Your task to perform on an android device: find snoozed emails in the gmail app Image 0: 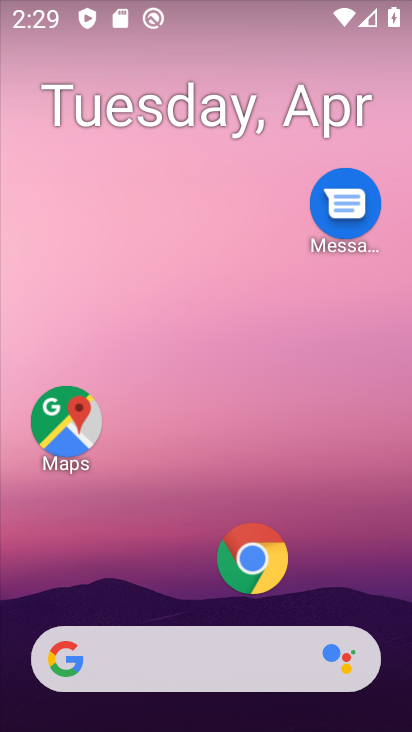
Step 0: drag from (208, 621) to (111, 10)
Your task to perform on an android device: find snoozed emails in the gmail app Image 1: 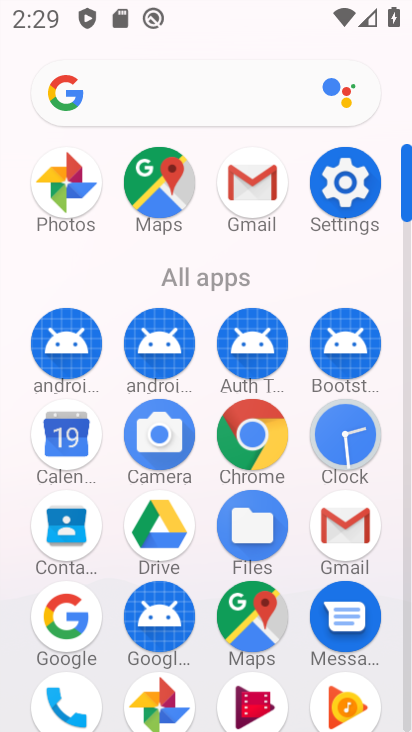
Step 1: click (339, 532)
Your task to perform on an android device: find snoozed emails in the gmail app Image 2: 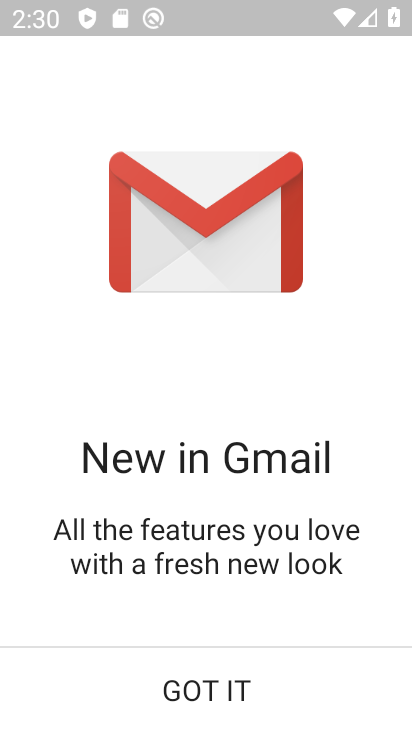
Step 2: click (194, 695)
Your task to perform on an android device: find snoozed emails in the gmail app Image 3: 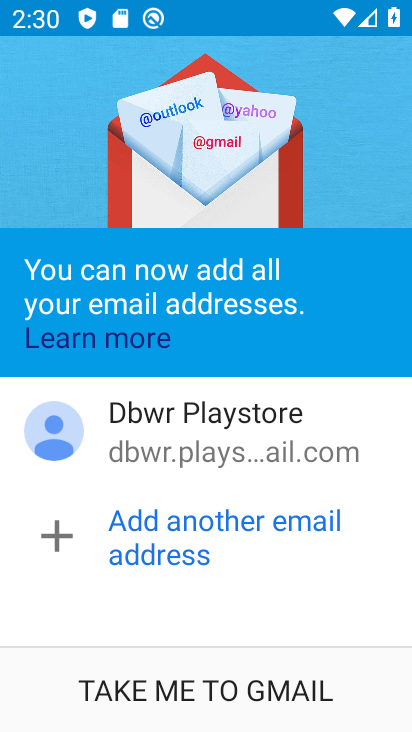
Step 3: click (194, 694)
Your task to perform on an android device: find snoozed emails in the gmail app Image 4: 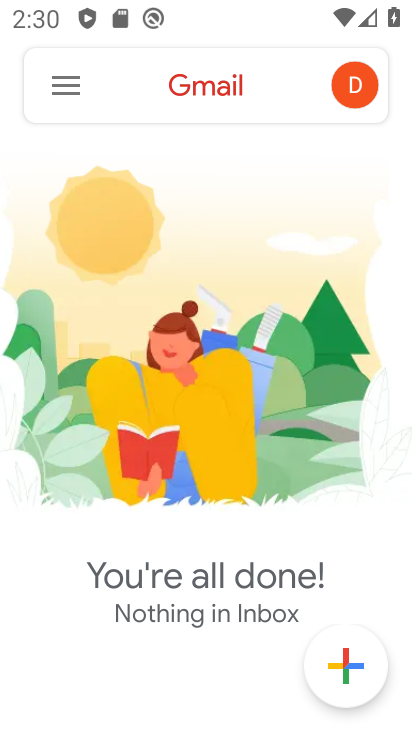
Step 4: click (54, 102)
Your task to perform on an android device: find snoozed emails in the gmail app Image 5: 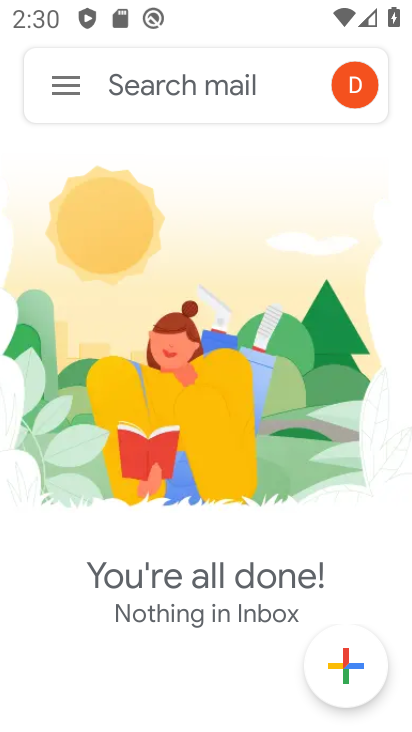
Step 5: click (55, 90)
Your task to perform on an android device: find snoozed emails in the gmail app Image 6: 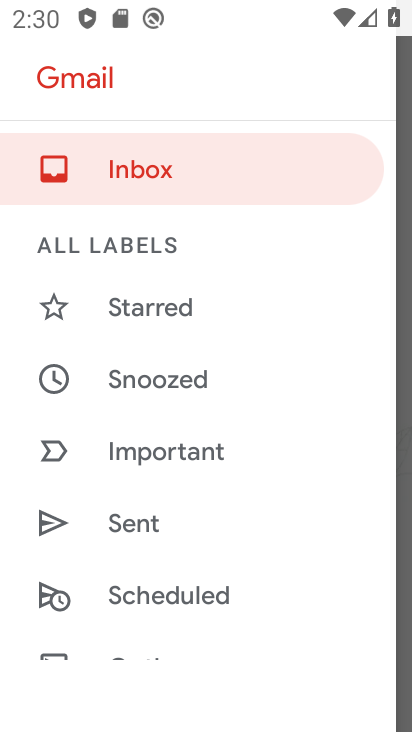
Step 6: click (132, 364)
Your task to perform on an android device: find snoozed emails in the gmail app Image 7: 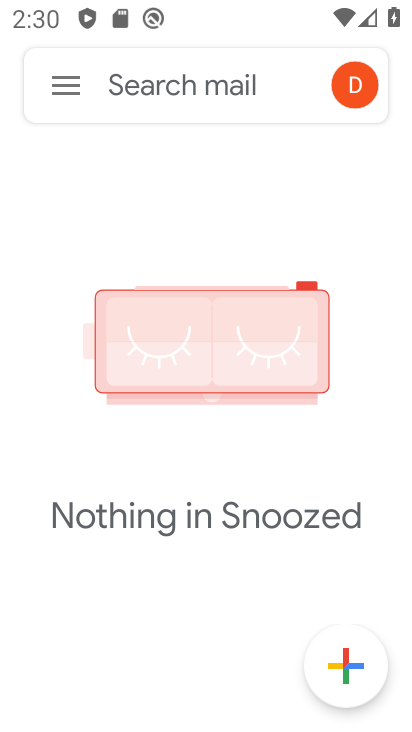
Step 7: task complete